Your task to perform on an android device: Open the stopwatch Image 0: 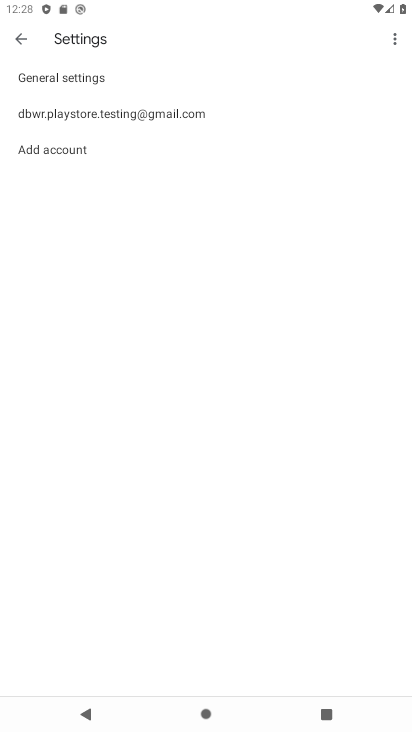
Step 0: press home button
Your task to perform on an android device: Open the stopwatch Image 1: 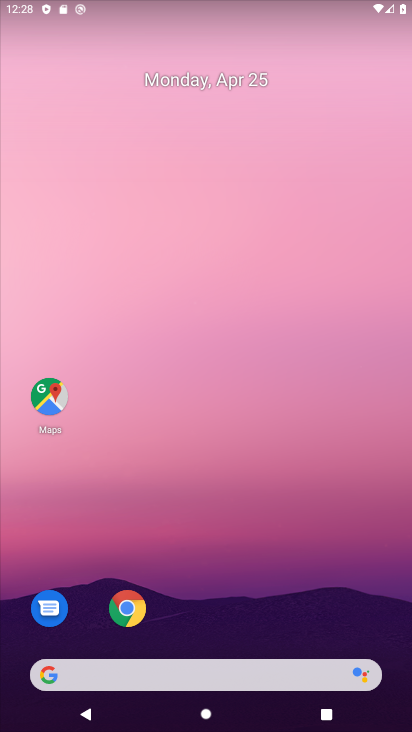
Step 1: drag from (278, 577) to (195, 92)
Your task to perform on an android device: Open the stopwatch Image 2: 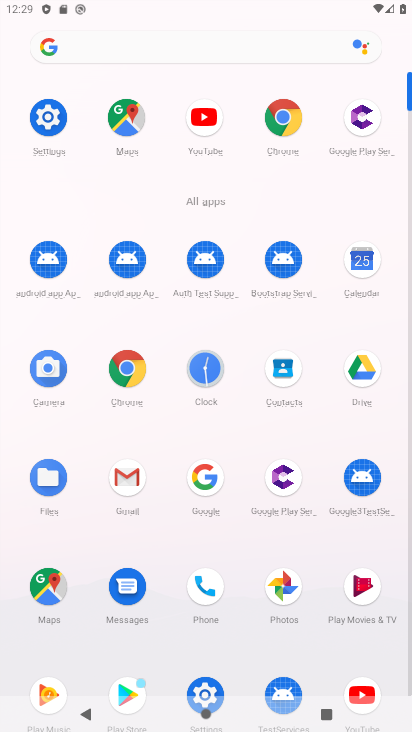
Step 2: click (197, 385)
Your task to perform on an android device: Open the stopwatch Image 3: 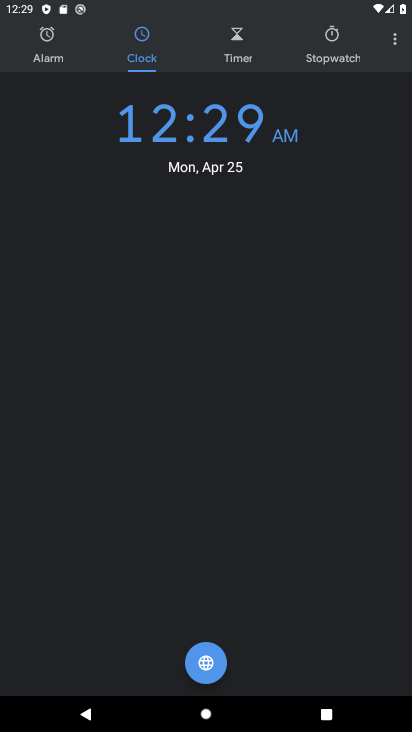
Step 3: click (338, 65)
Your task to perform on an android device: Open the stopwatch Image 4: 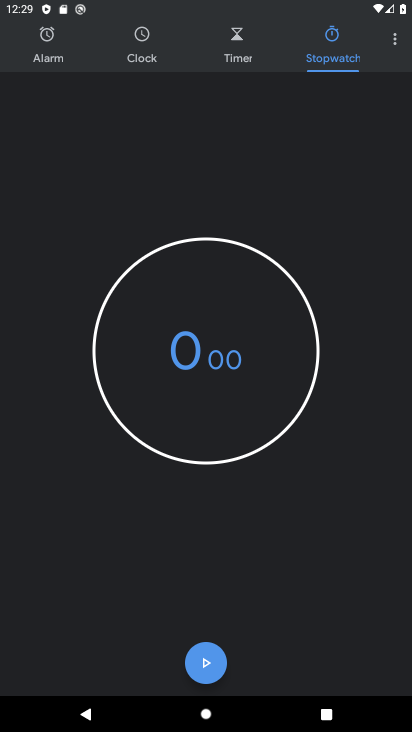
Step 4: task complete